Your task to perform on an android device: refresh tabs in the chrome app Image 0: 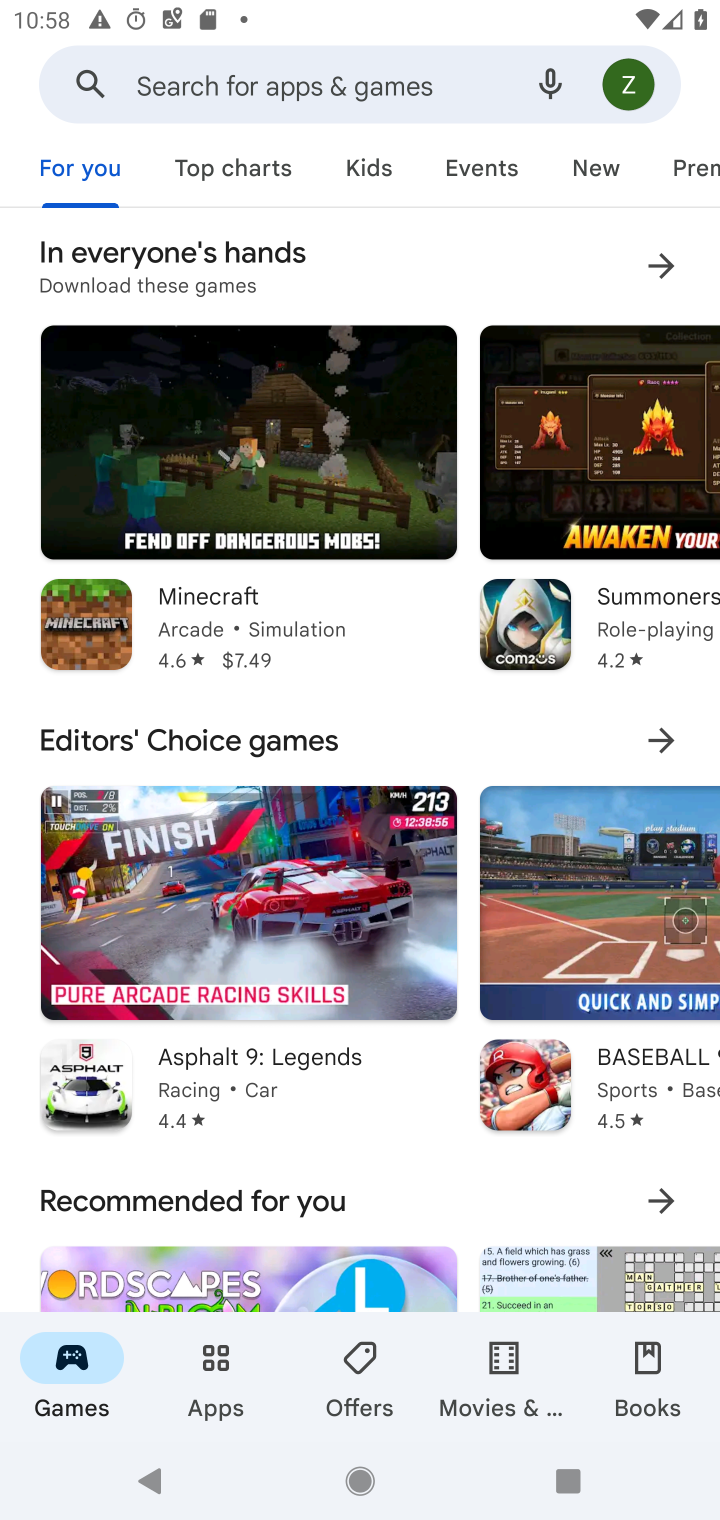
Step 0: press home button
Your task to perform on an android device: refresh tabs in the chrome app Image 1: 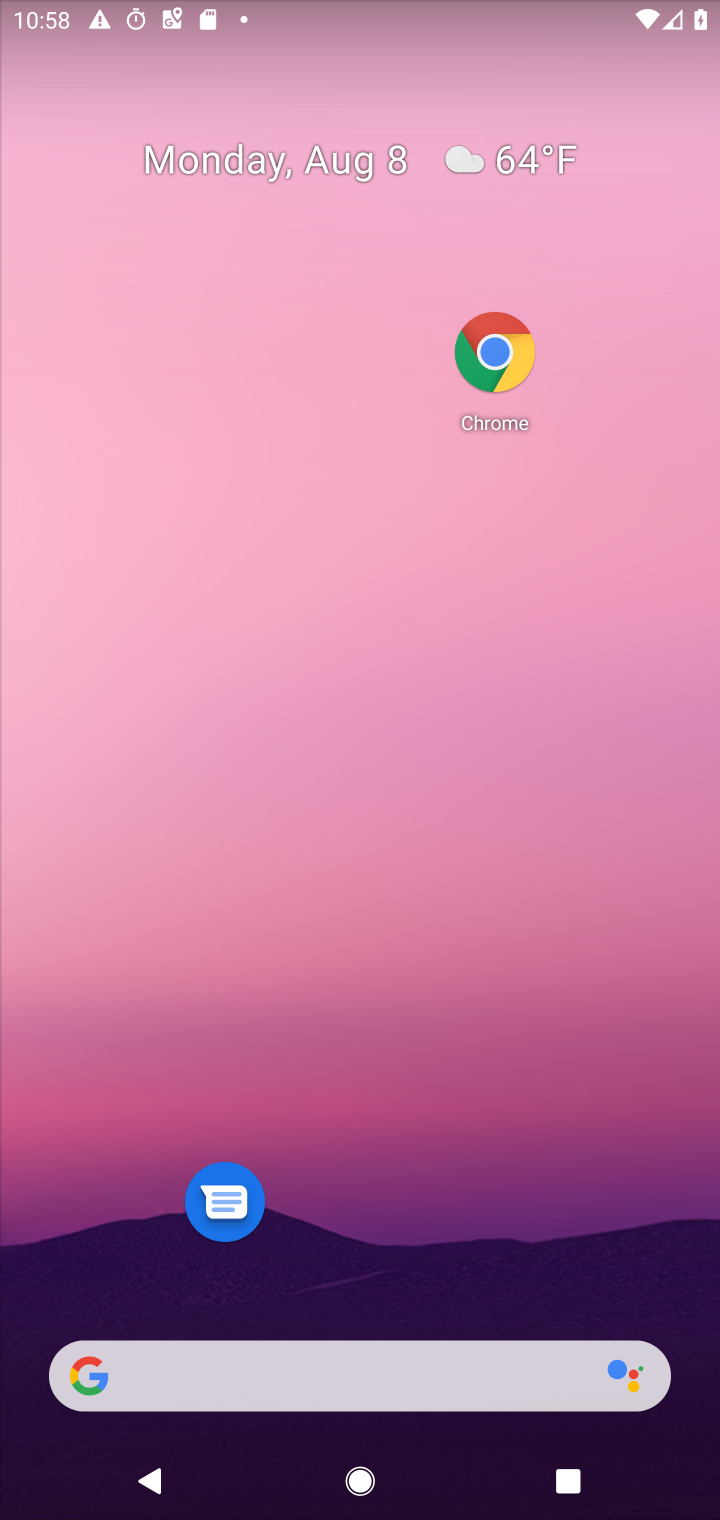
Step 1: drag from (470, 1153) to (358, 458)
Your task to perform on an android device: refresh tabs in the chrome app Image 2: 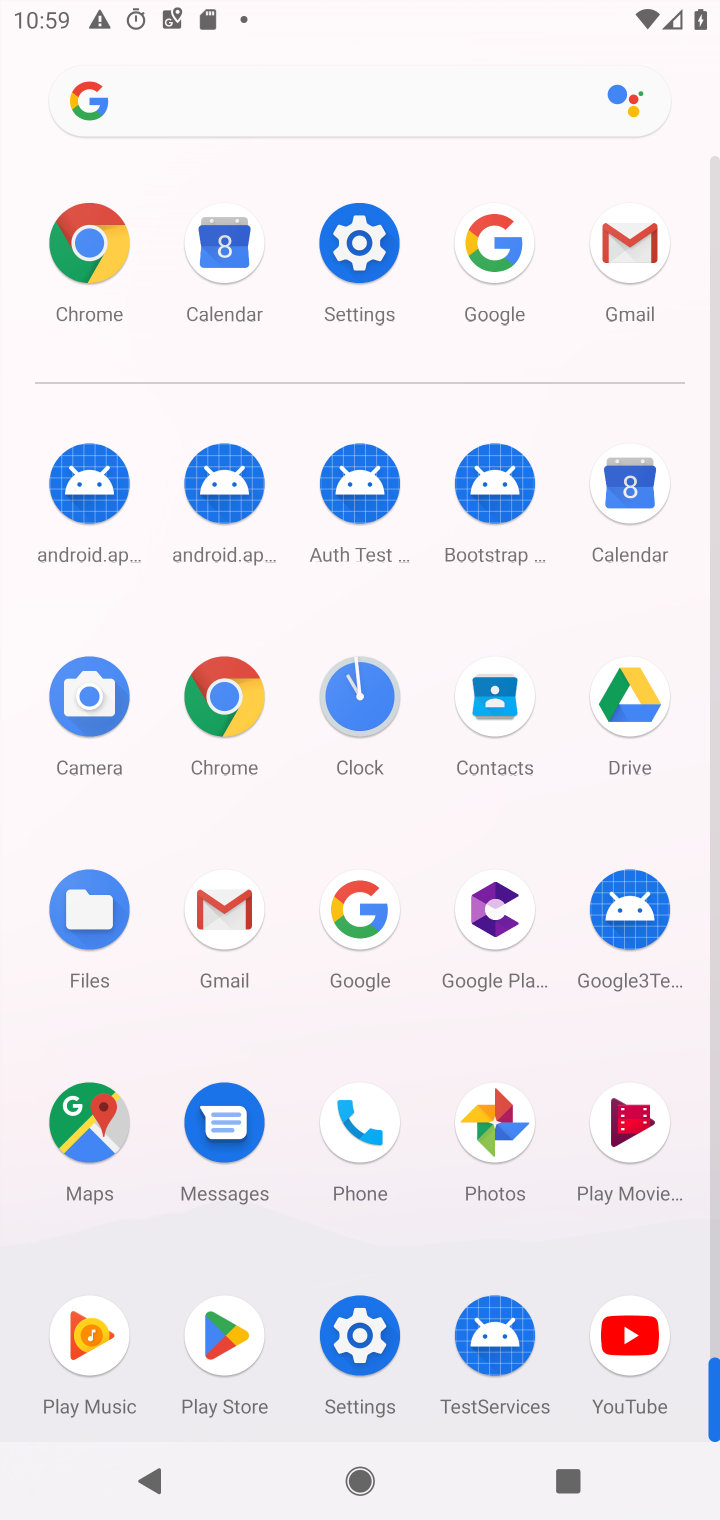
Step 2: click (101, 277)
Your task to perform on an android device: refresh tabs in the chrome app Image 3: 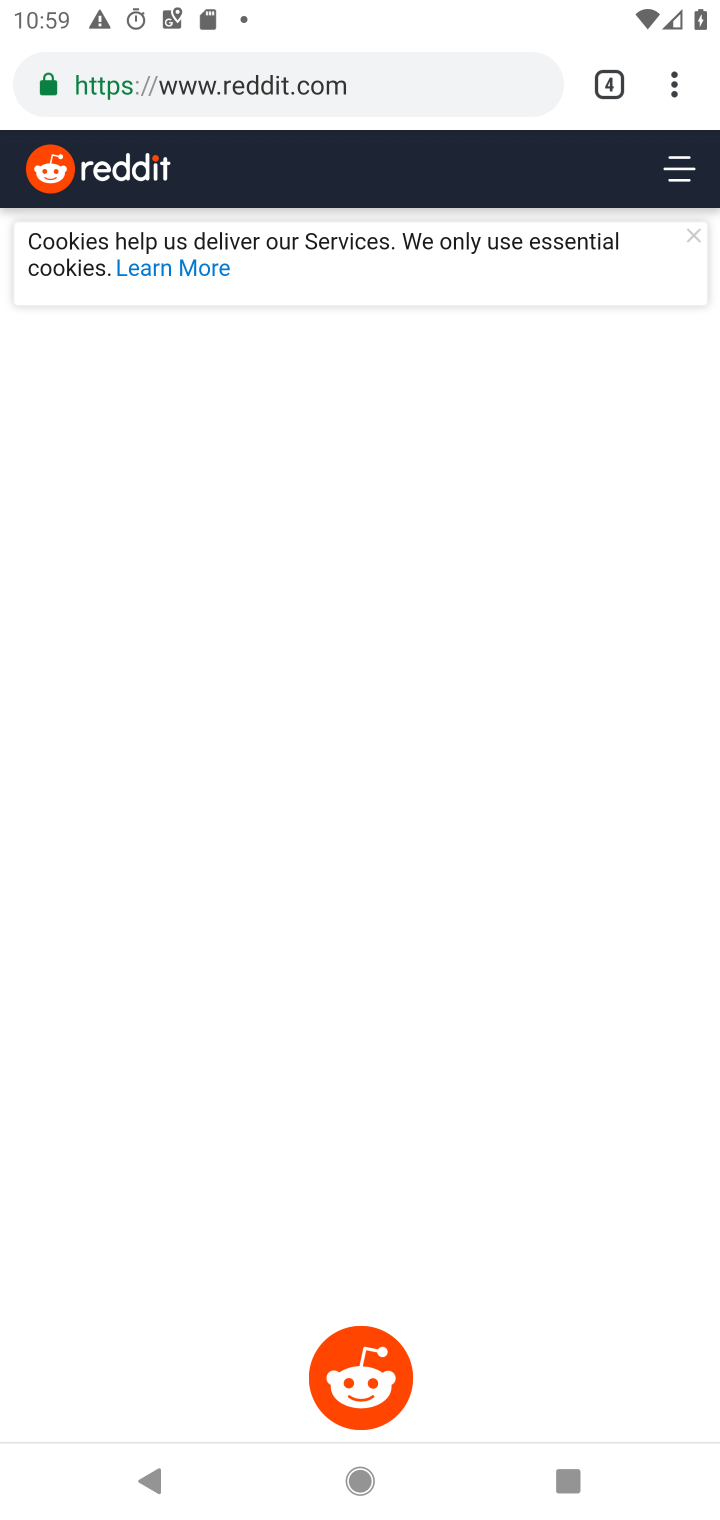
Step 3: click (670, 86)
Your task to perform on an android device: refresh tabs in the chrome app Image 4: 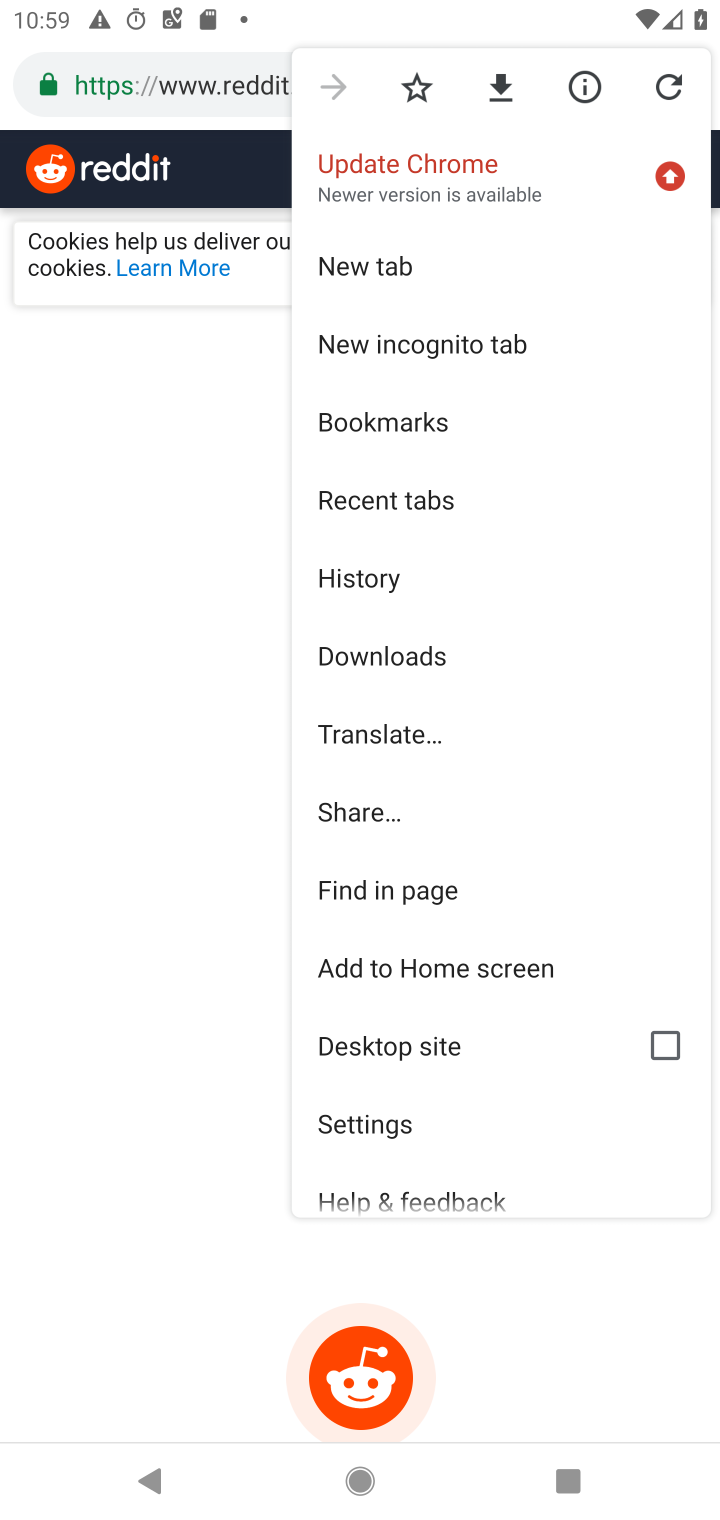
Step 4: click (671, 85)
Your task to perform on an android device: refresh tabs in the chrome app Image 5: 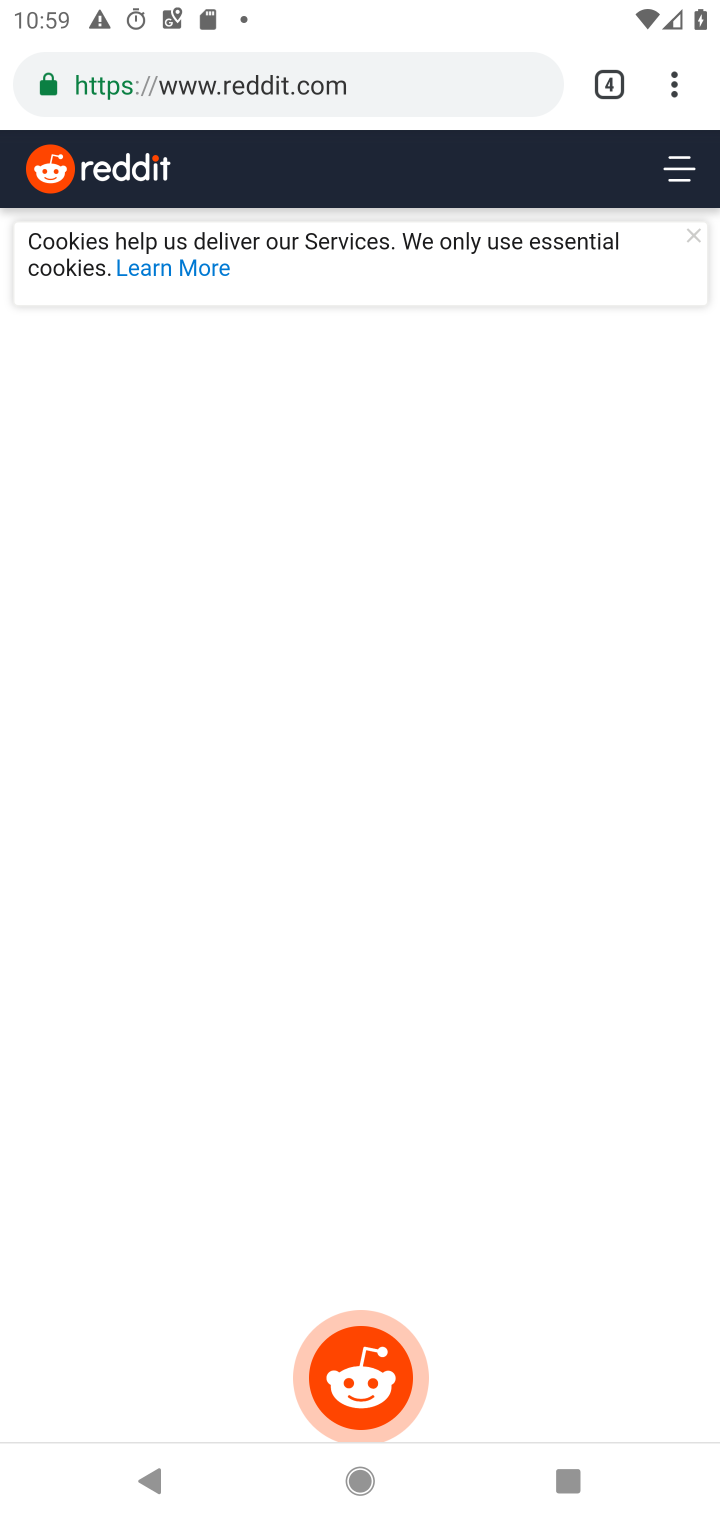
Step 5: task complete